Your task to perform on an android device: allow cookies in the chrome app Image 0: 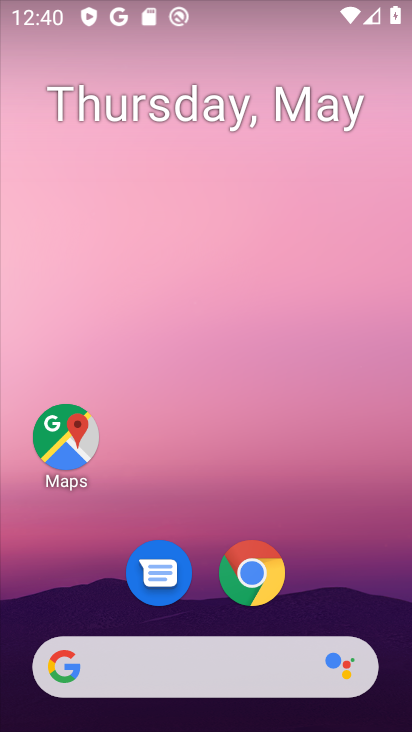
Step 0: drag from (330, 567) to (258, 68)
Your task to perform on an android device: allow cookies in the chrome app Image 1: 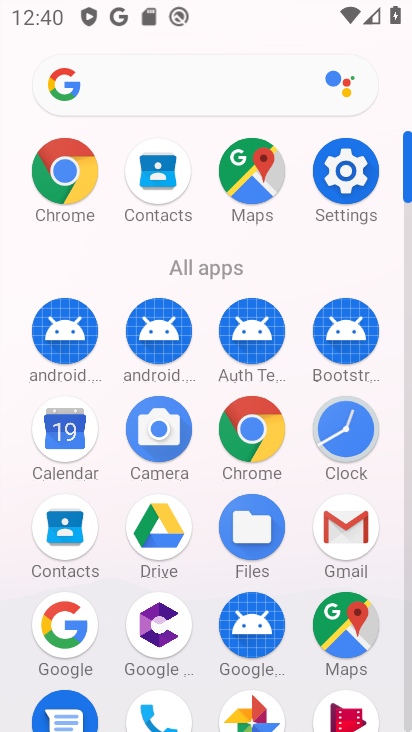
Step 1: click (249, 422)
Your task to perform on an android device: allow cookies in the chrome app Image 2: 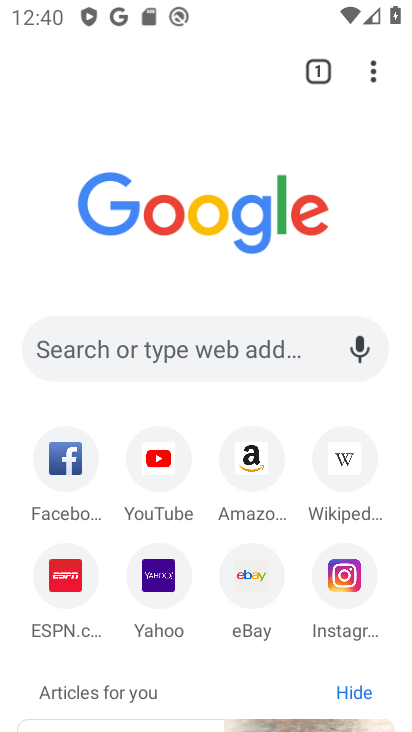
Step 2: drag from (369, 73) to (128, 602)
Your task to perform on an android device: allow cookies in the chrome app Image 3: 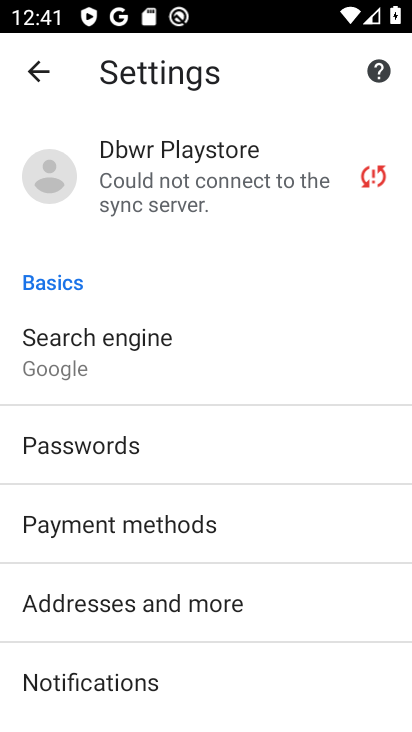
Step 3: drag from (272, 585) to (274, 176)
Your task to perform on an android device: allow cookies in the chrome app Image 4: 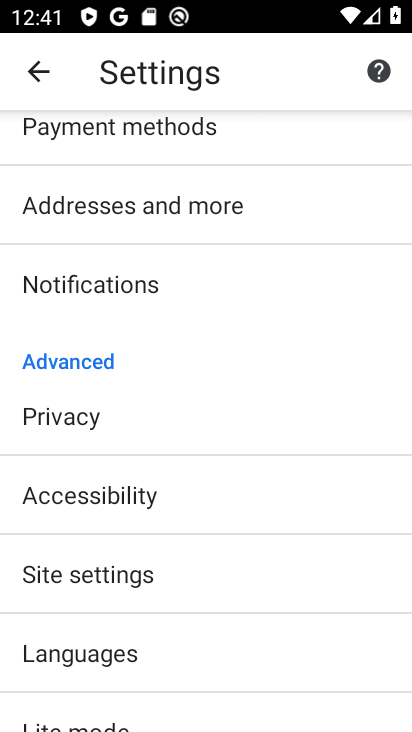
Step 4: click (172, 557)
Your task to perform on an android device: allow cookies in the chrome app Image 5: 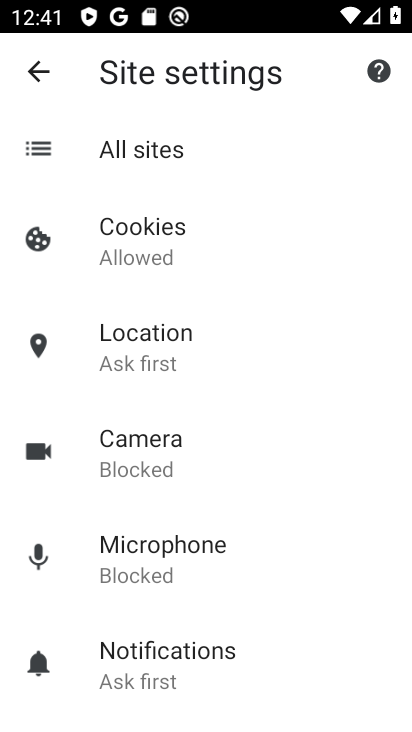
Step 5: drag from (249, 573) to (255, 179)
Your task to perform on an android device: allow cookies in the chrome app Image 6: 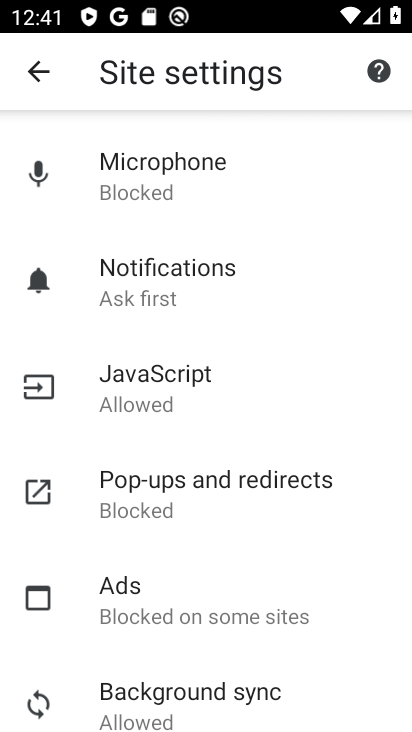
Step 6: drag from (300, 576) to (296, 164)
Your task to perform on an android device: allow cookies in the chrome app Image 7: 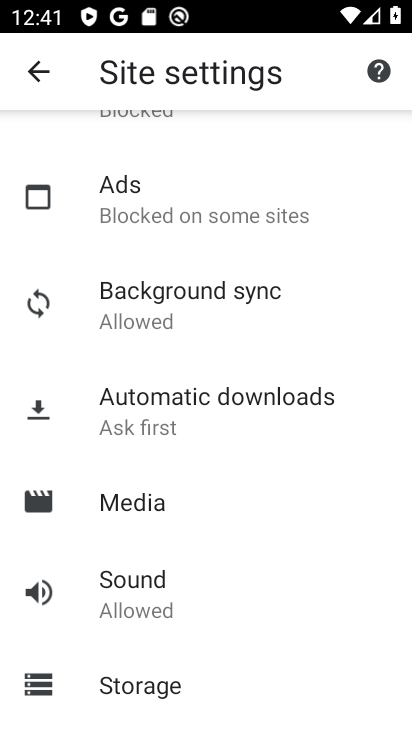
Step 7: drag from (253, 559) to (253, 146)
Your task to perform on an android device: allow cookies in the chrome app Image 8: 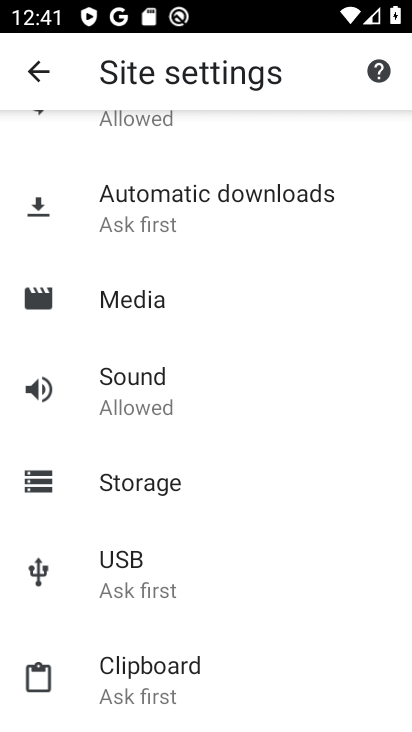
Step 8: drag from (249, 481) to (248, 172)
Your task to perform on an android device: allow cookies in the chrome app Image 9: 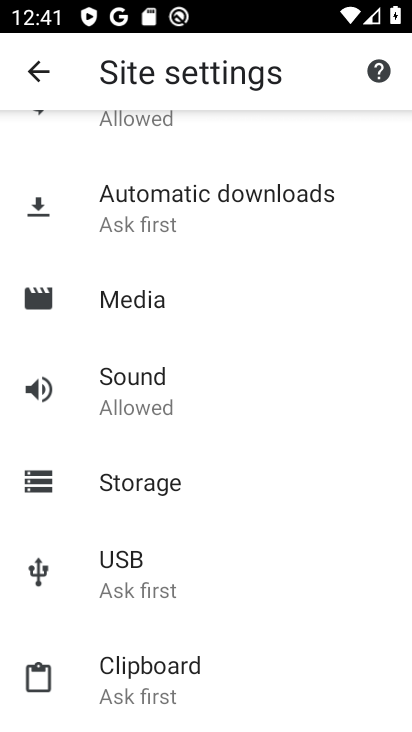
Step 9: drag from (248, 172) to (293, 609)
Your task to perform on an android device: allow cookies in the chrome app Image 10: 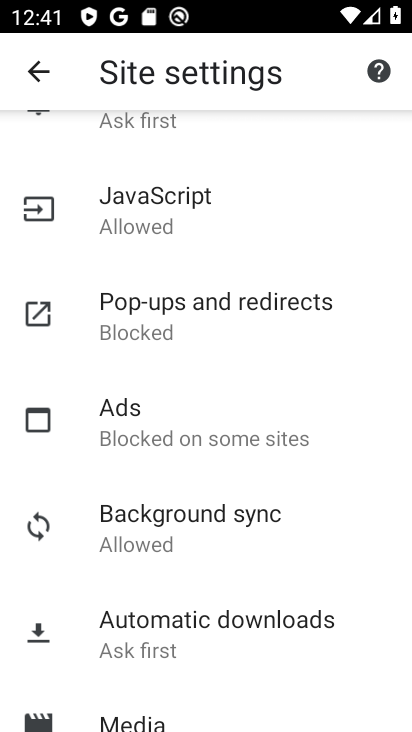
Step 10: drag from (254, 218) to (254, 596)
Your task to perform on an android device: allow cookies in the chrome app Image 11: 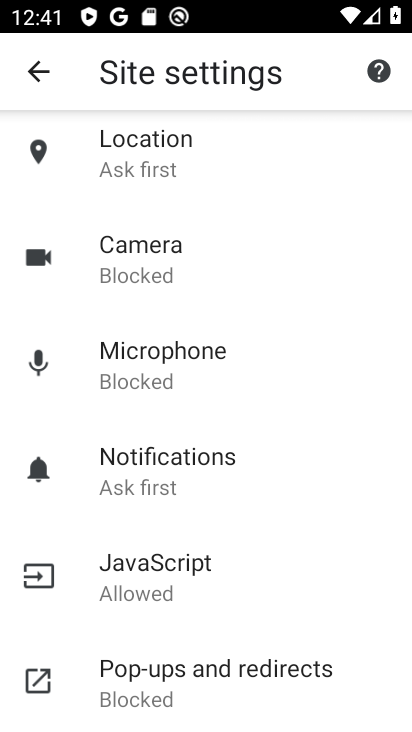
Step 11: drag from (214, 203) to (214, 584)
Your task to perform on an android device: allow cookies in the chrome app Image 12: 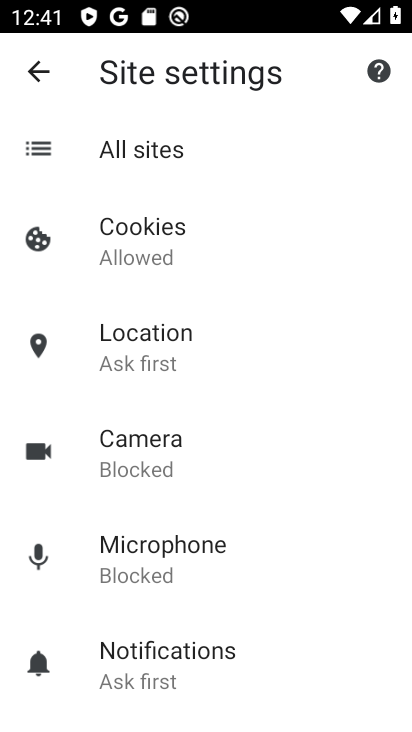
Step 12: click (163, 252)
Your task to perform on an android device: allow cookies in the chrome app Image 13: 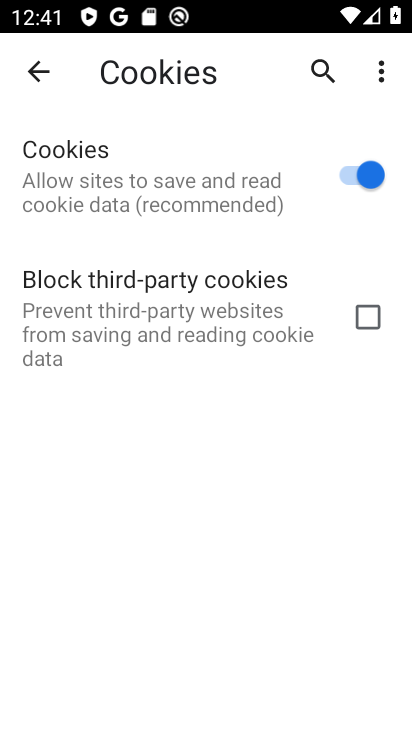
Step 13: task complete